Your task to perform on an android device: search for starred emails in the gmail app Image 0: 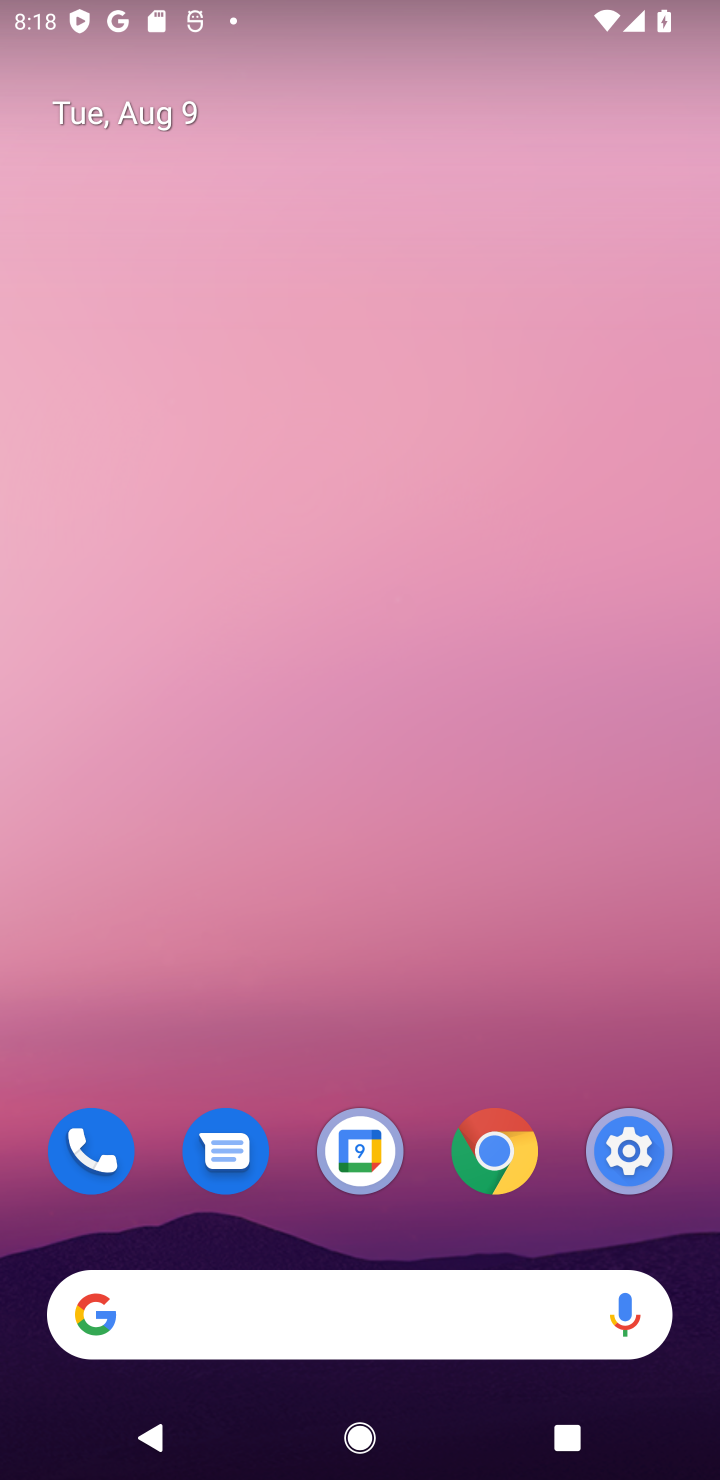
Step 0: drag from (278, 1120) to (339, 261)
Your task to perform on an android device: search for starred emails in the gmail app Image 1: 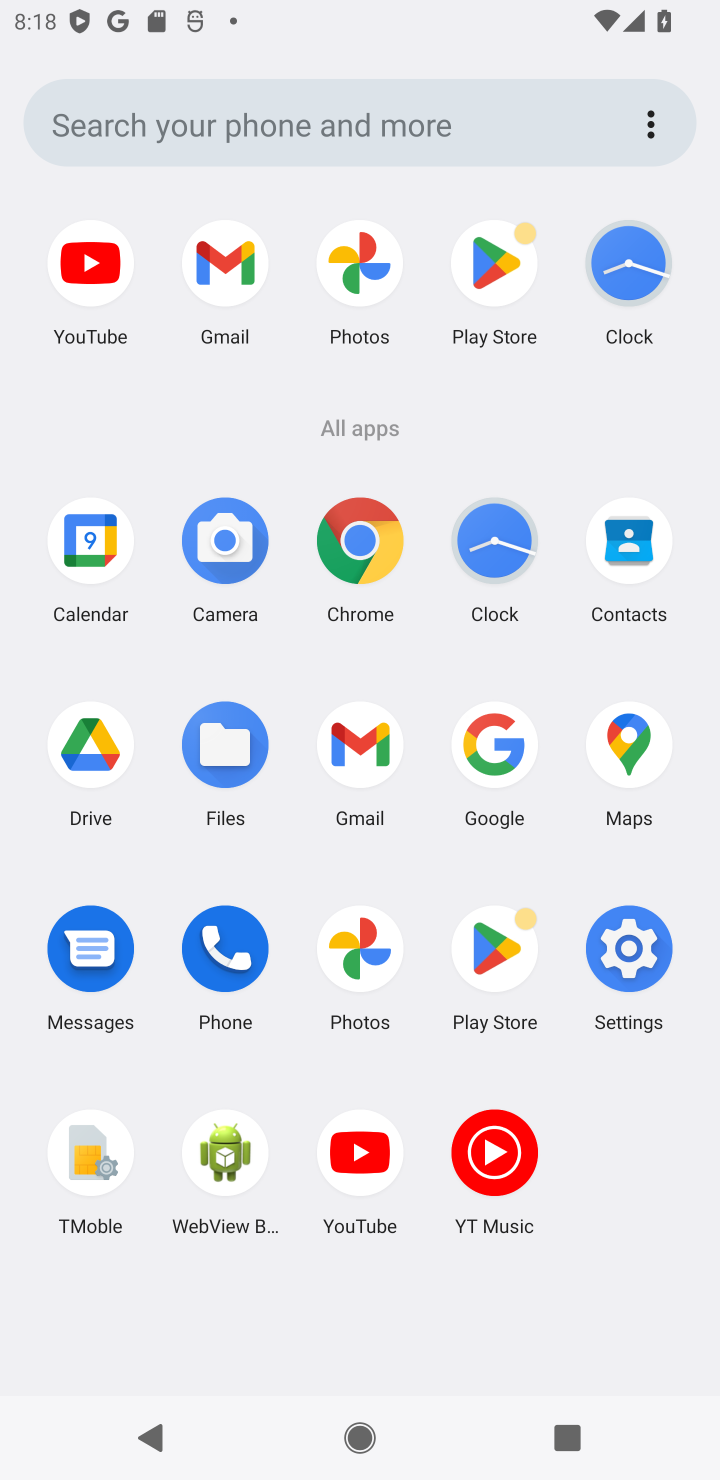
Step 1: click (220, 275)
Your task to perform on an android device: search for starred emails in the gmail app Image 2: 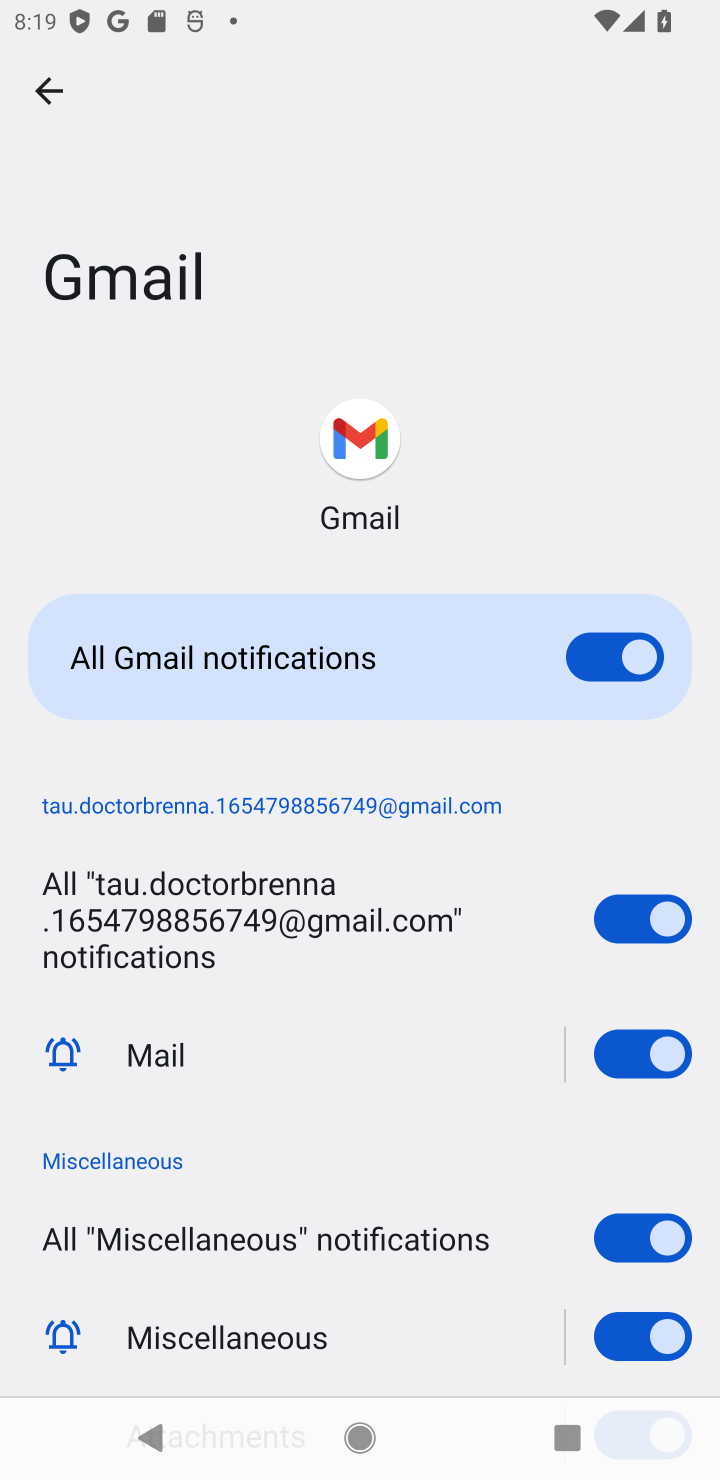
Step 2: click (45, 95)
Your task to perform on an android device: search for starred emails in the gmail app Image 3: 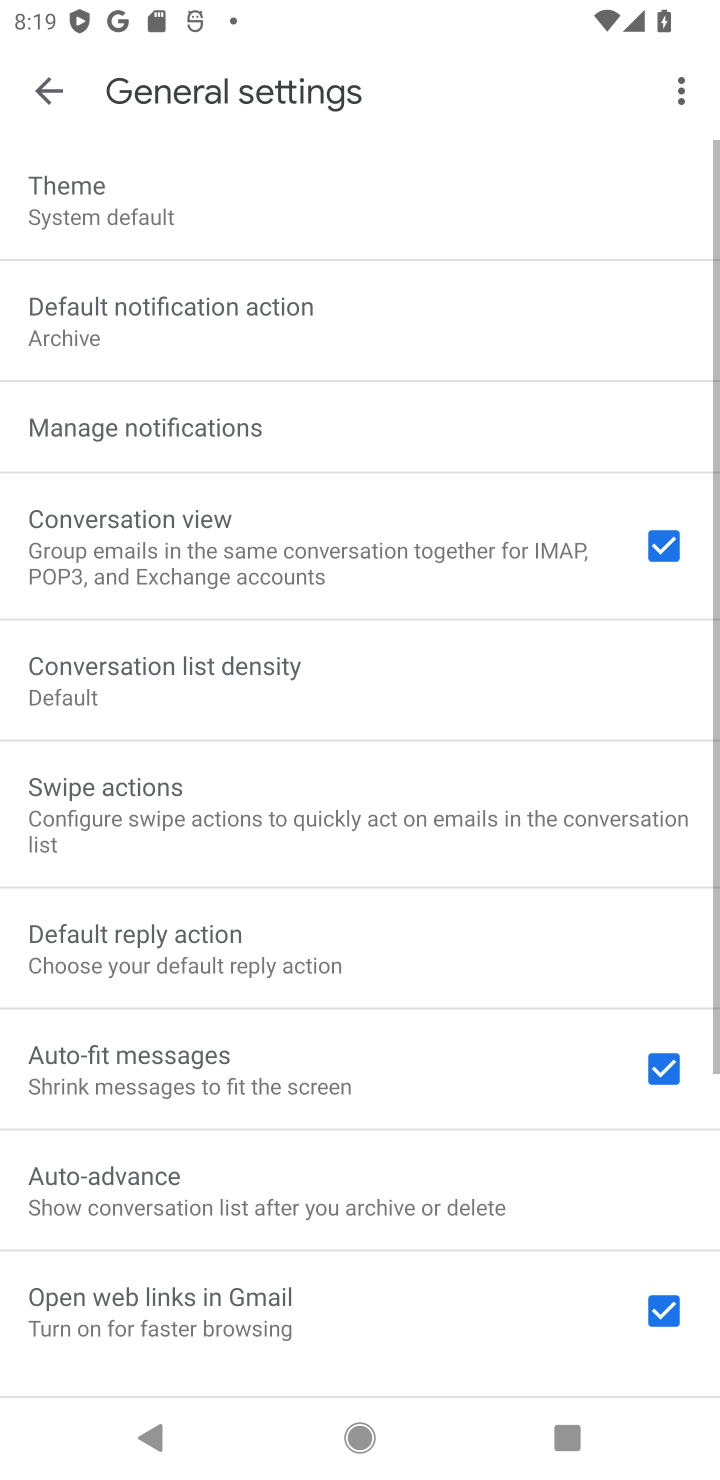
Step 3: click (45, 95)
Your task to perform on an android device: search for starred emails in the gmail app Image 4: 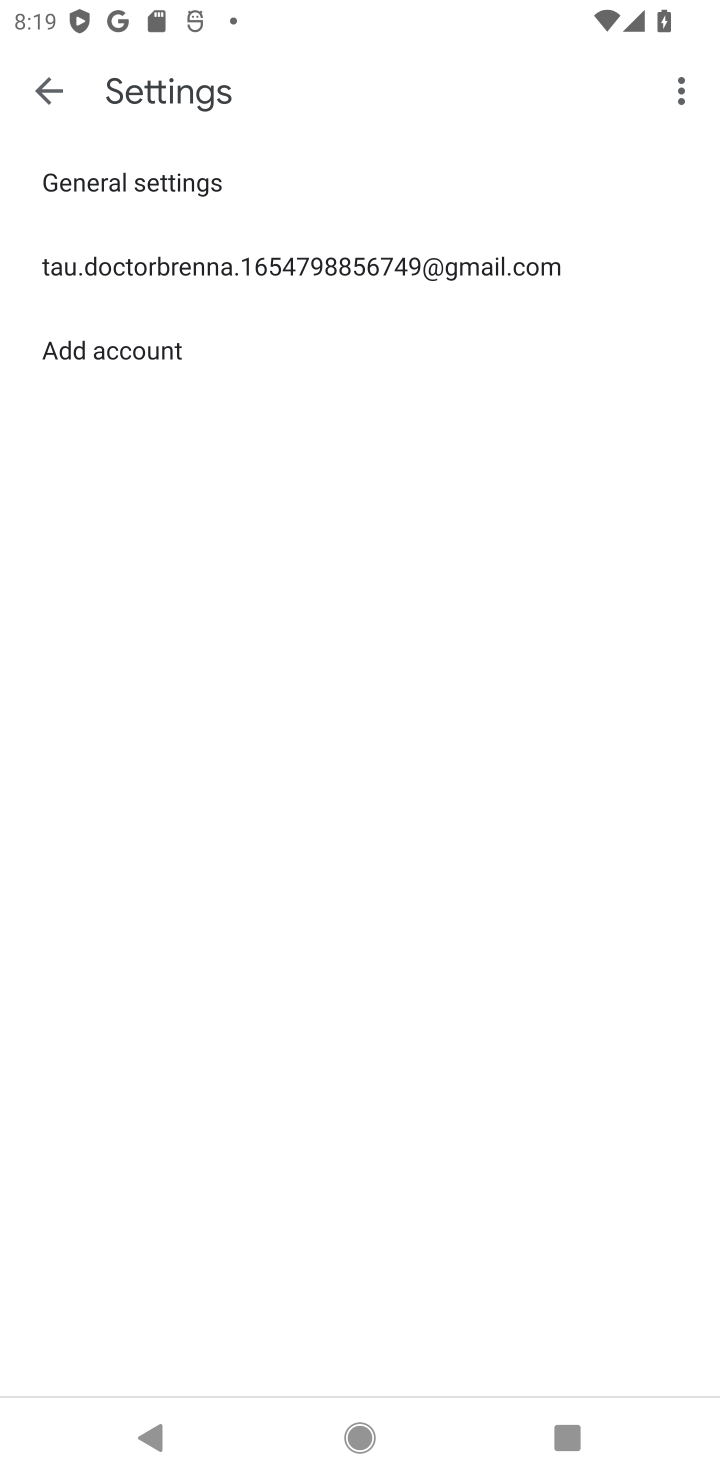
Step 4: click (45, 95)
Your task to perform on an android device: search for starred emails in the gmail app Image 5: 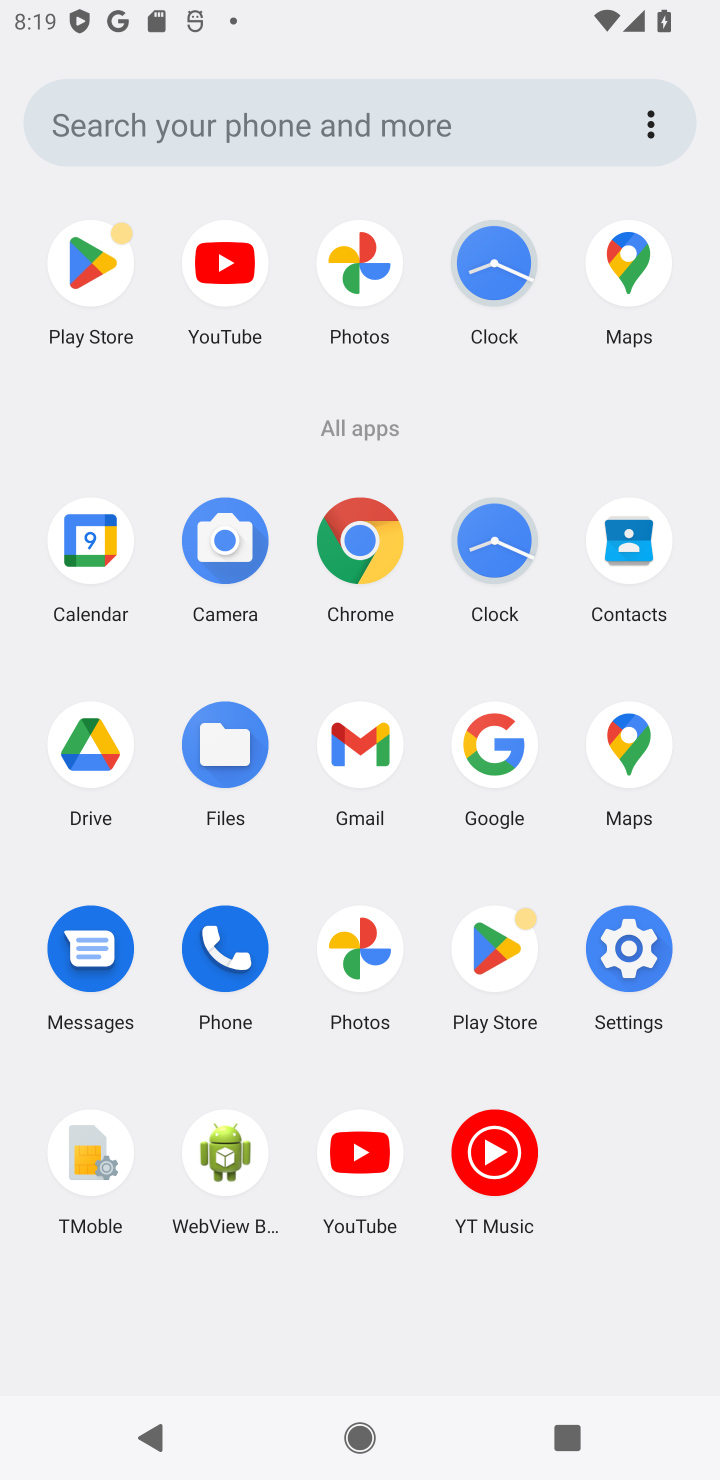
Step 5: click (361, 762)
Your task to perform on an android device: search for starred emails in the gmail app Image 6: 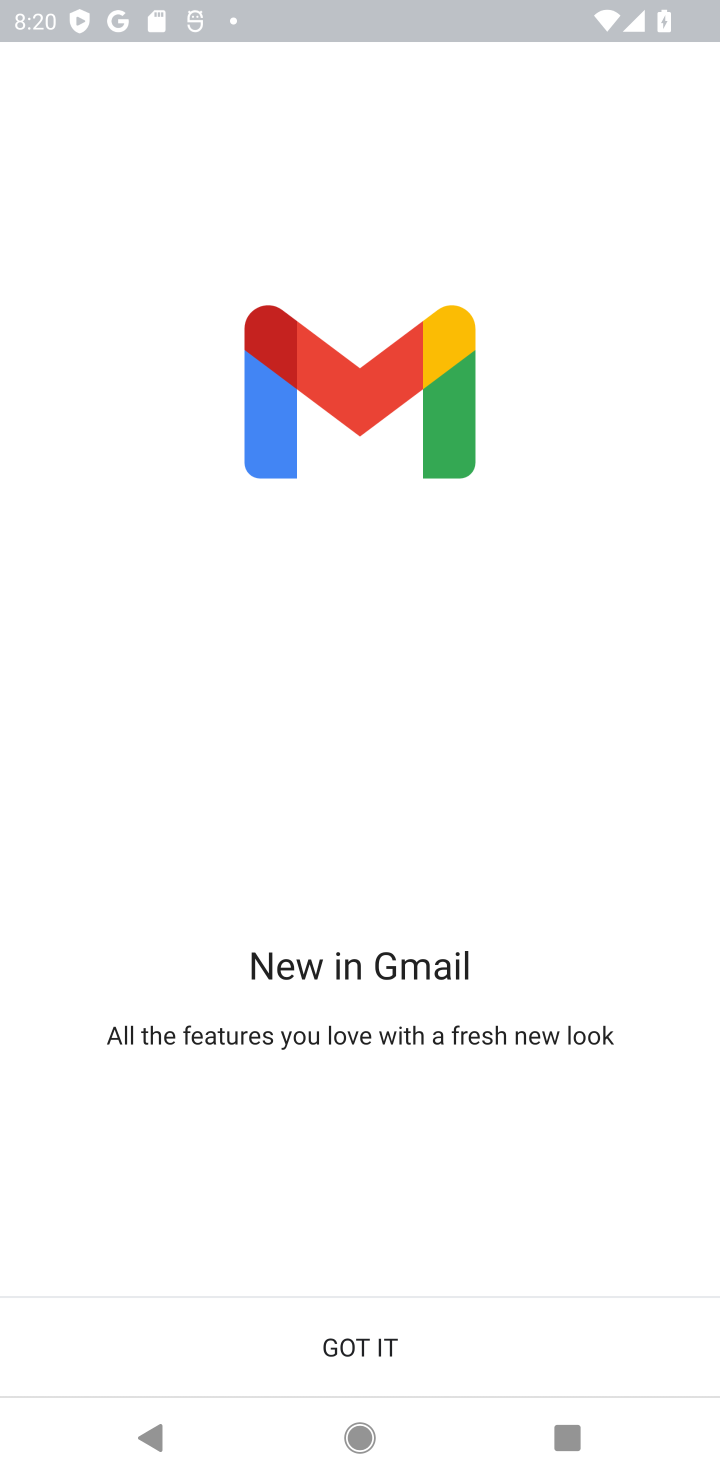
Step 6: click (436, 1336)
Your task to perform on an android device: search for starred emails in the gmail app Image 7: 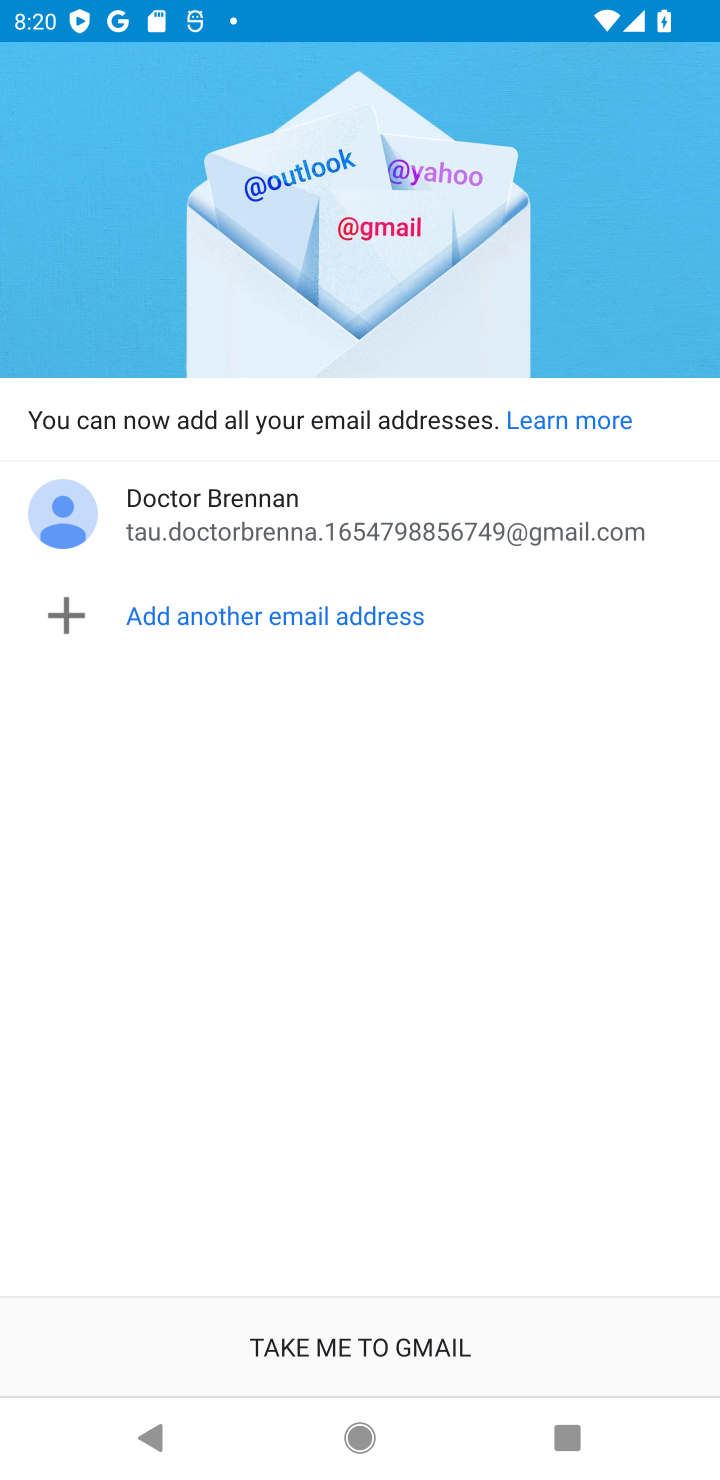
Step 7: click (436, 1336)
Your task to perform on an android device: search for starred emails in the gmail app Image 8: 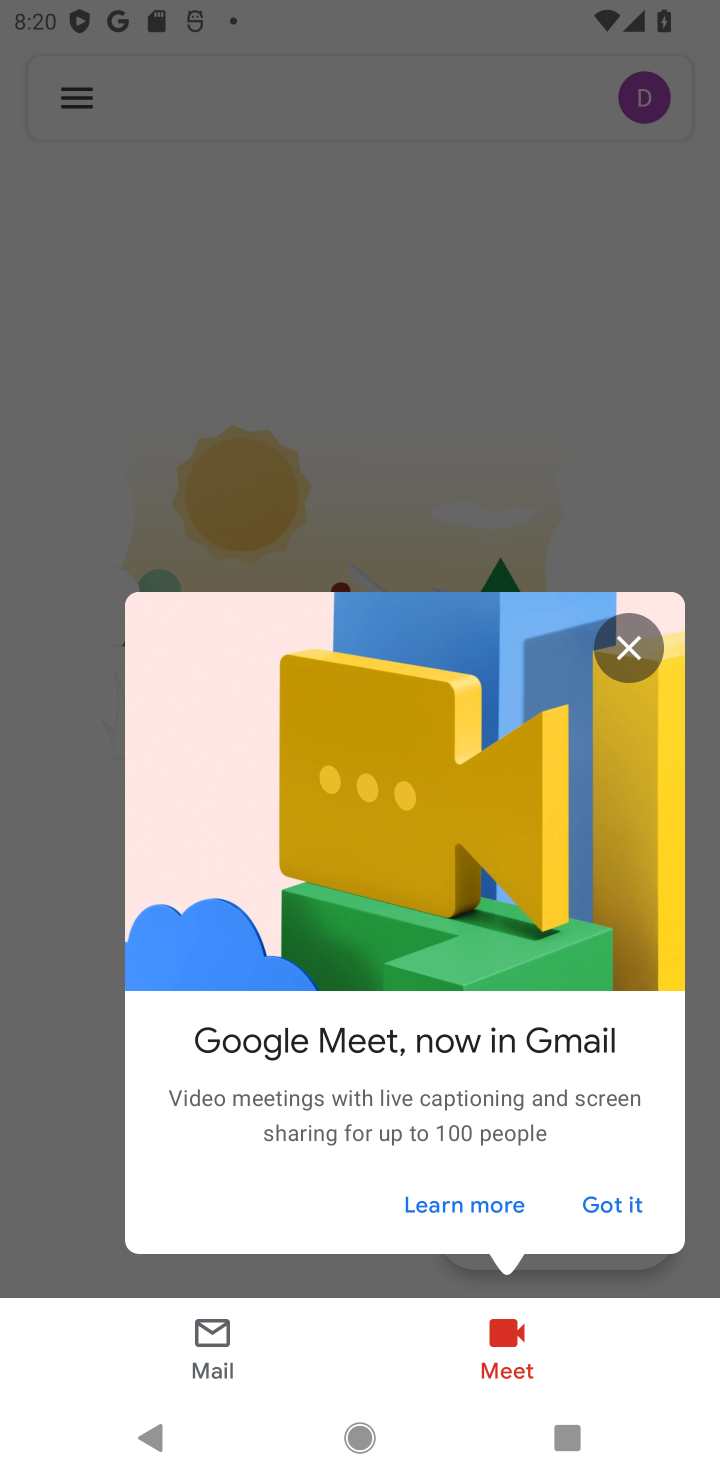
Step 8: click (589, 1198)
Your task to perform on an android device: search for starred emails in the gmail app Image 9: 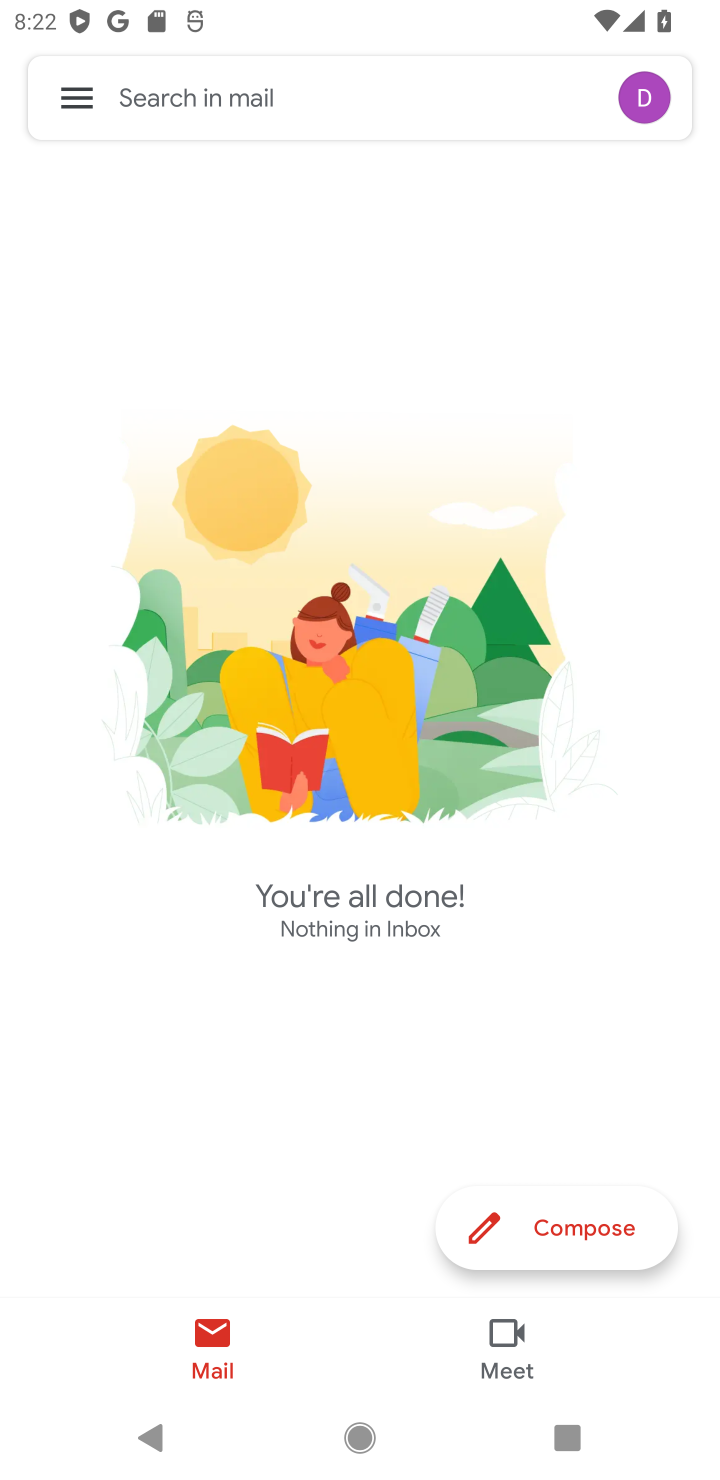
Step 9: click (72, 105)
Your task to perform on an android device: search for starred emails in the gmail app Image 10: 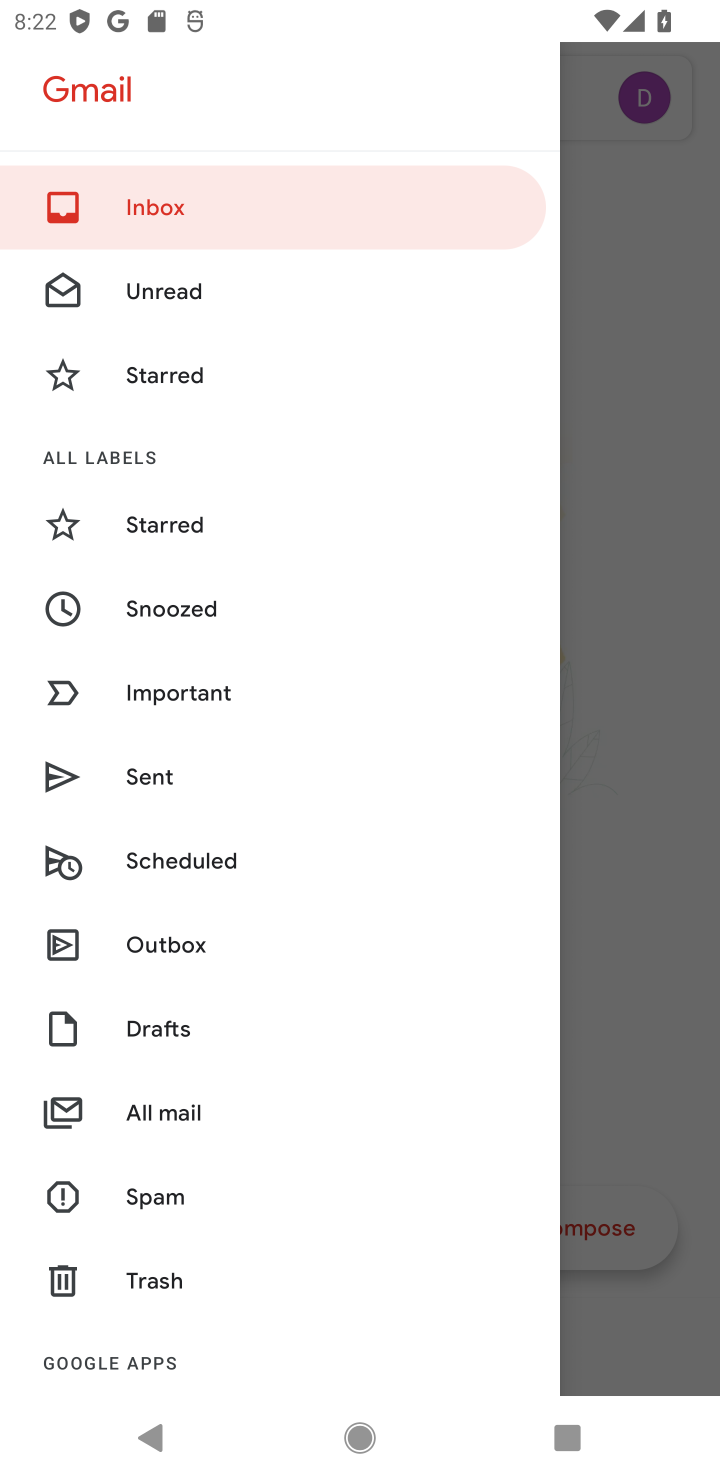
Step 10: click (172, 225)
Your task to perform on an android device: search for starred emails in the gmail app Image 11: 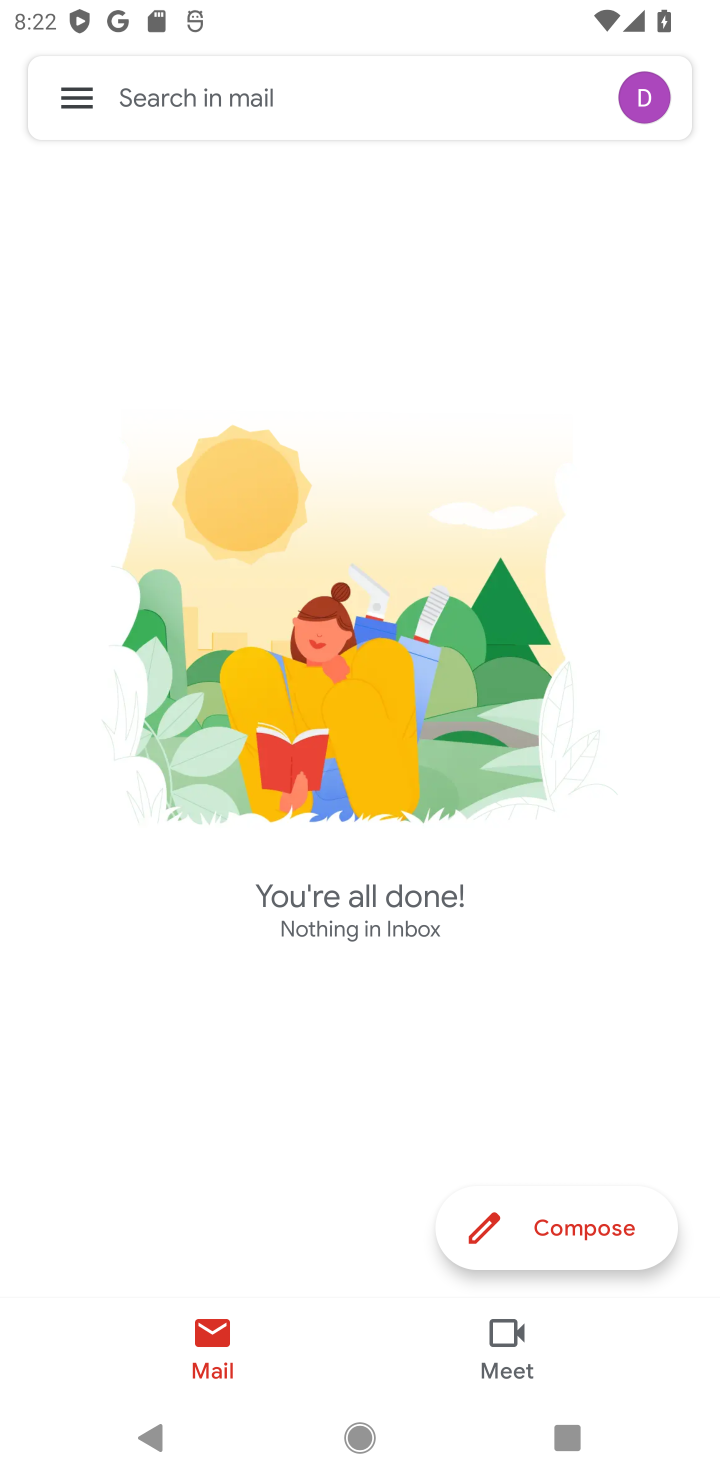
Step 11: task complete